Your task to perform on an android device: Go to internet settings Image 0: 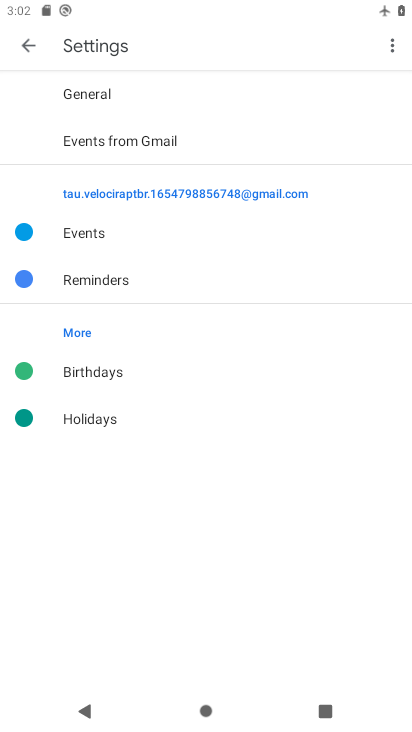
Step 0: press home button
Your task to perform on an android device: Go to internet settings Image 1: 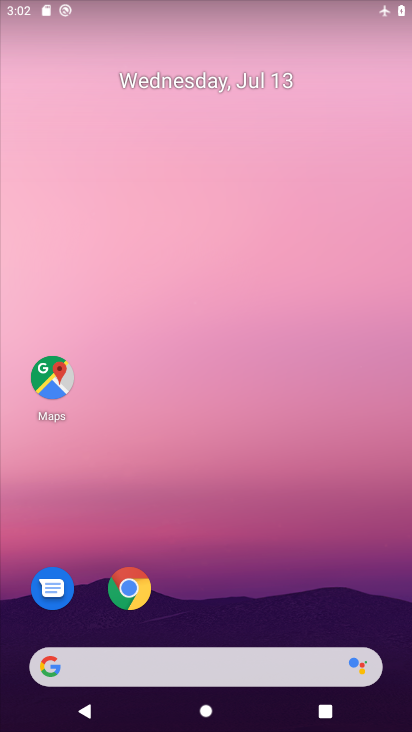
Step 1: drag from (223, 632) to (176, 105)
Your task to perform on an android device: Go to internet settings Image 2: 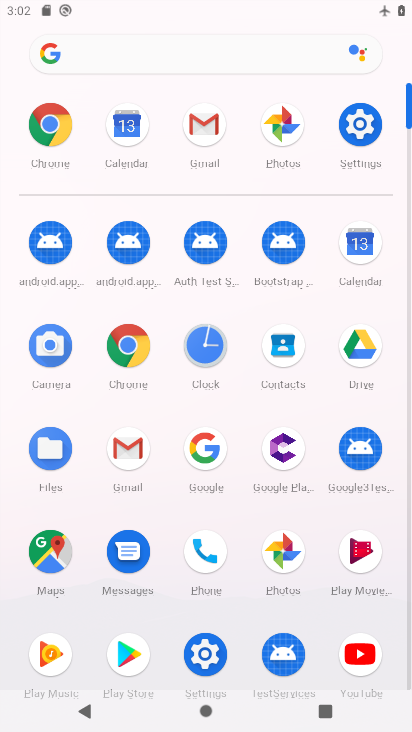
Step 2: click (372, 117)
Your task to perform on an android device: Go to internet settings Image 3: 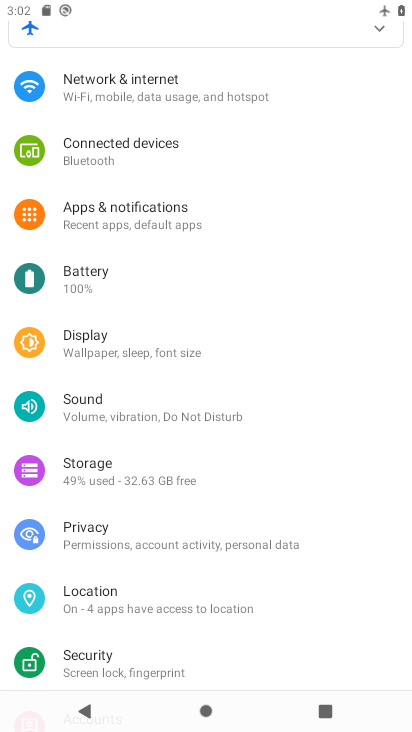
Step 3: click (104, 96)
Your task to perform on an android device: Go to internet settings Image 4: 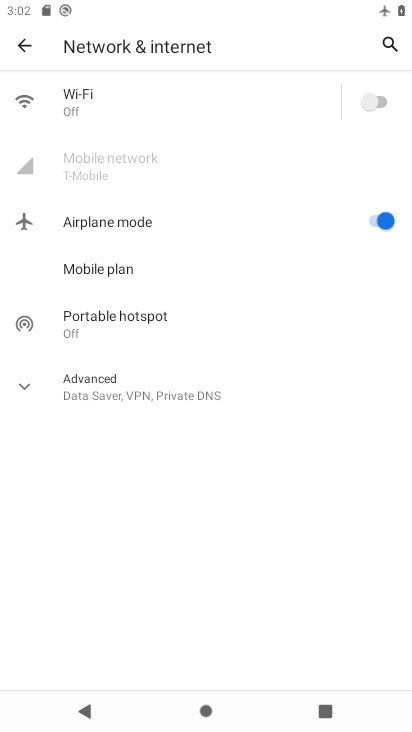
Step 4: click (99, 156)
Your task to perform on an android device: Go to internet settings Image 5: 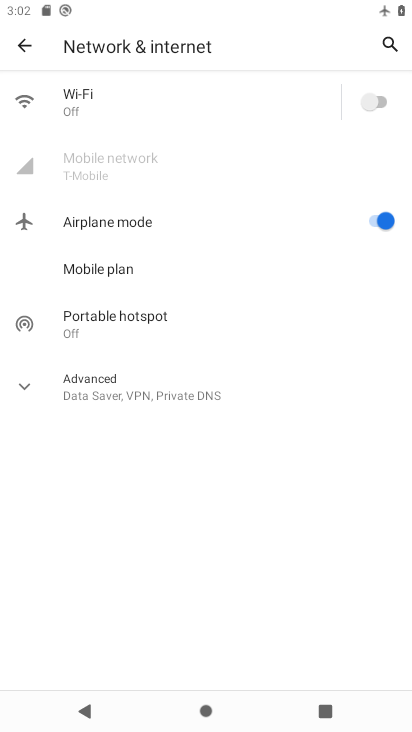
Step 5: task complete